Your task to perform on an android device: Open Yahoo.com Image 0: 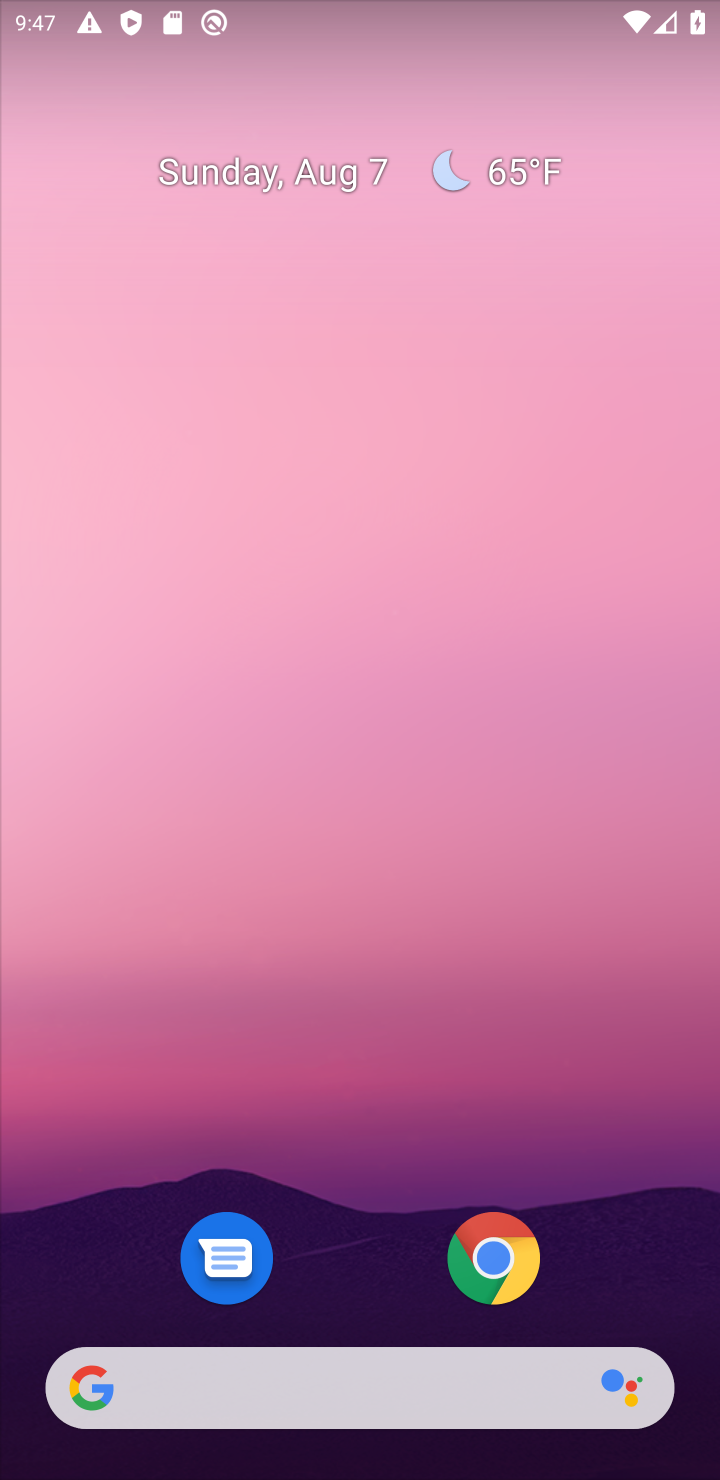
Step 0: press home button
Your task to perform on an android device: Open Yahoo.com Image 1: 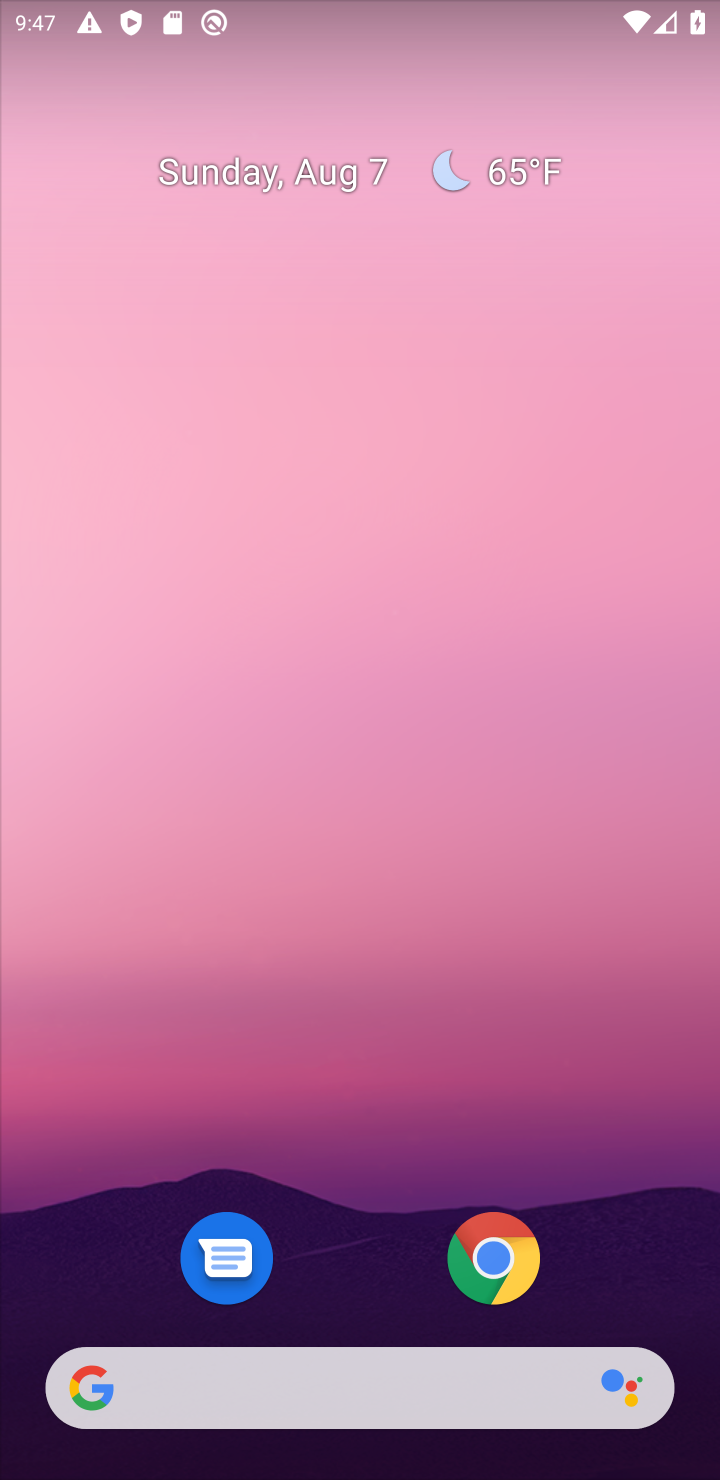
Step 1: click (517, 1265)
Your task to perform on an android device: Open Yahoo.com Image 2: 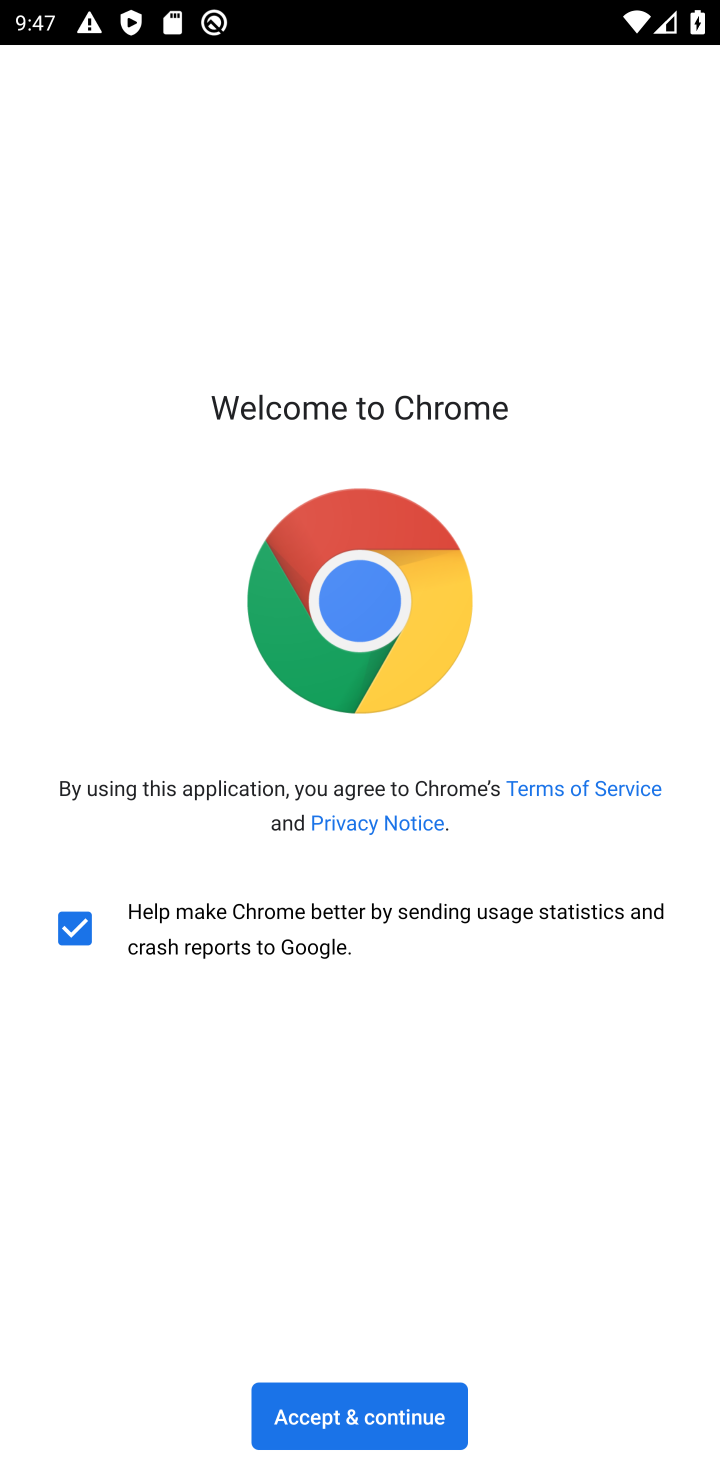
Step 2: drag from (415, 1420) to (615, 1444)
Your task to perform on an android device: Open Yahoo.com Image 3: 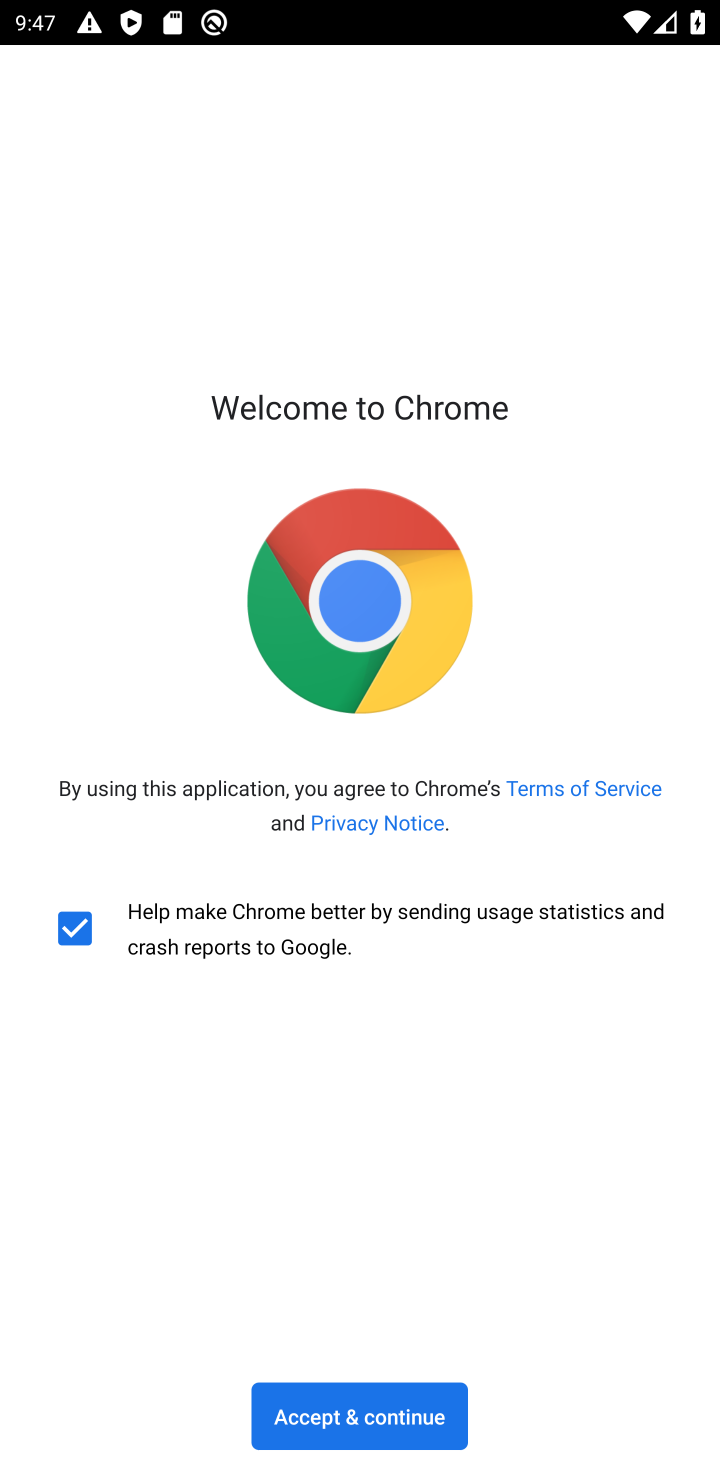
Step 3: click (615, 1444)
Your task to perform on an android device: Open Yahoo.com Image 4: 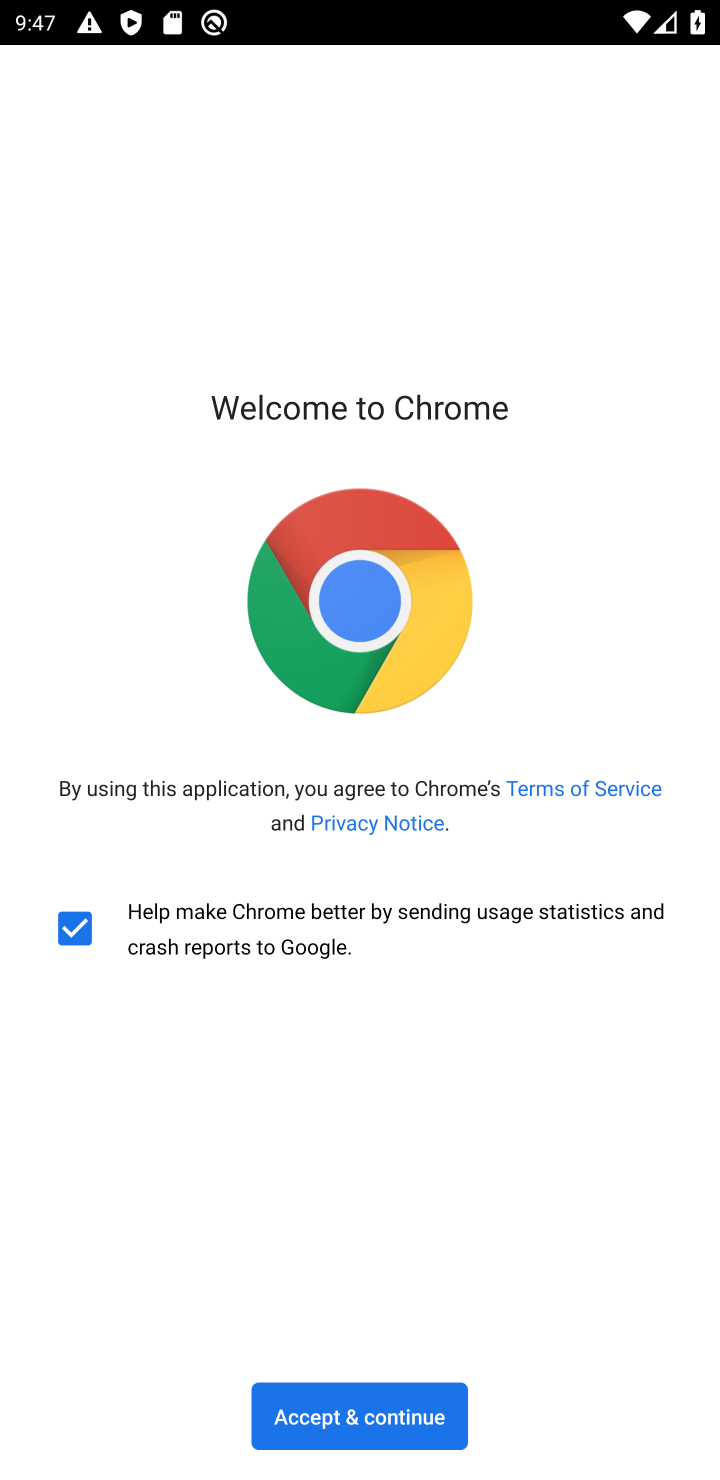
Step 4: click (365, 1417)
Your task to perform on an android device: Open Yahoo.com Image 5: 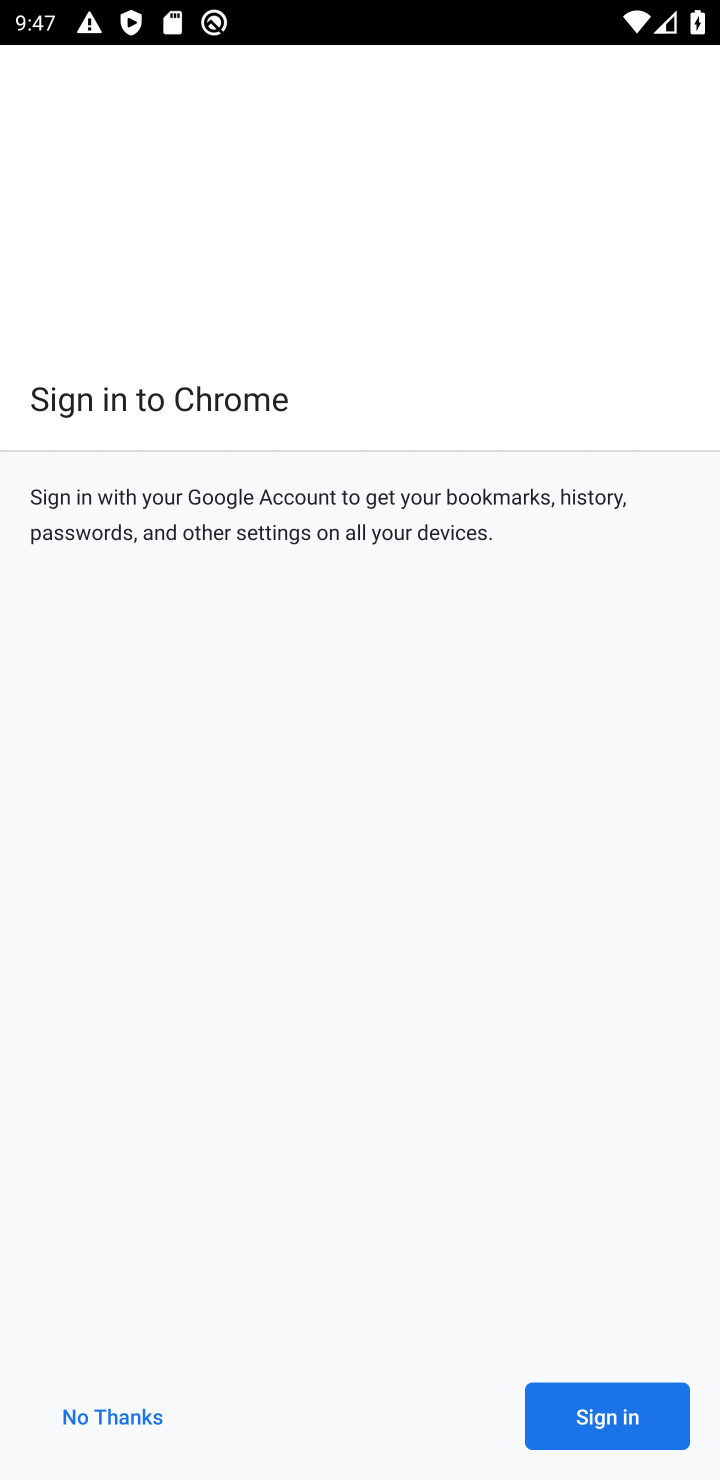
Step 5: click (651, 1408)
Your task to perform on an android device: Open Yahoo.com Image 6: 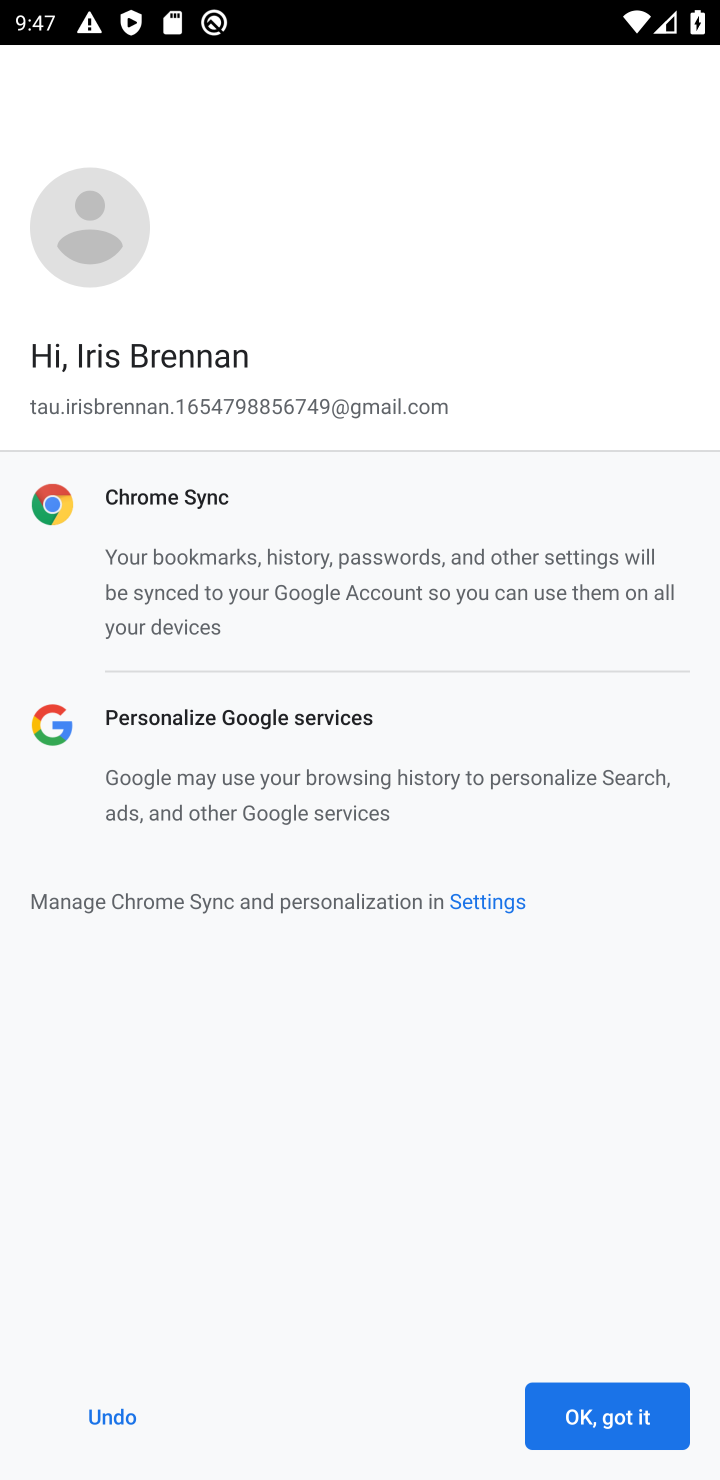
Step 6: click (651, 1408)
Your task to perform on an android device: Open Yahoo.com Image 7: 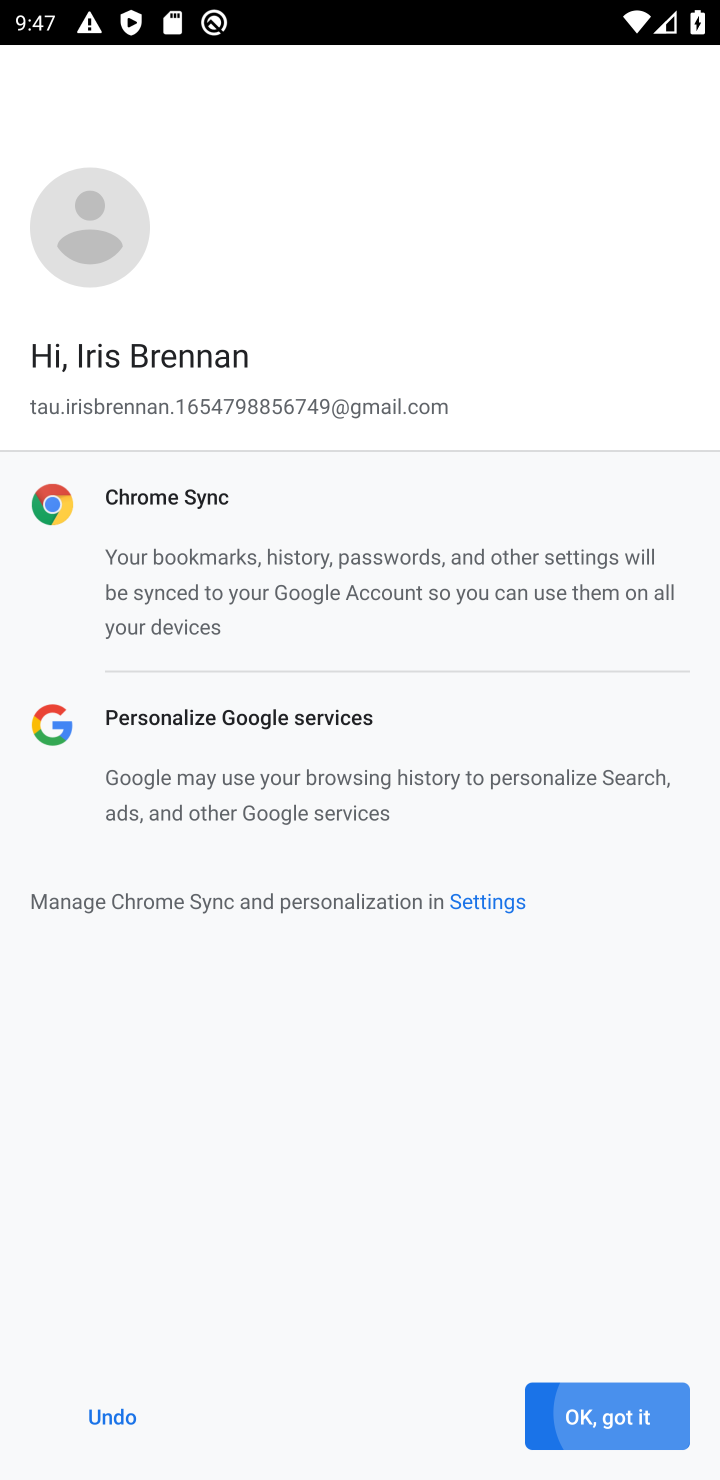
Step 7: click (651, 1408)
Your task to perform on an android device: Open Yahoo.com Image 8: 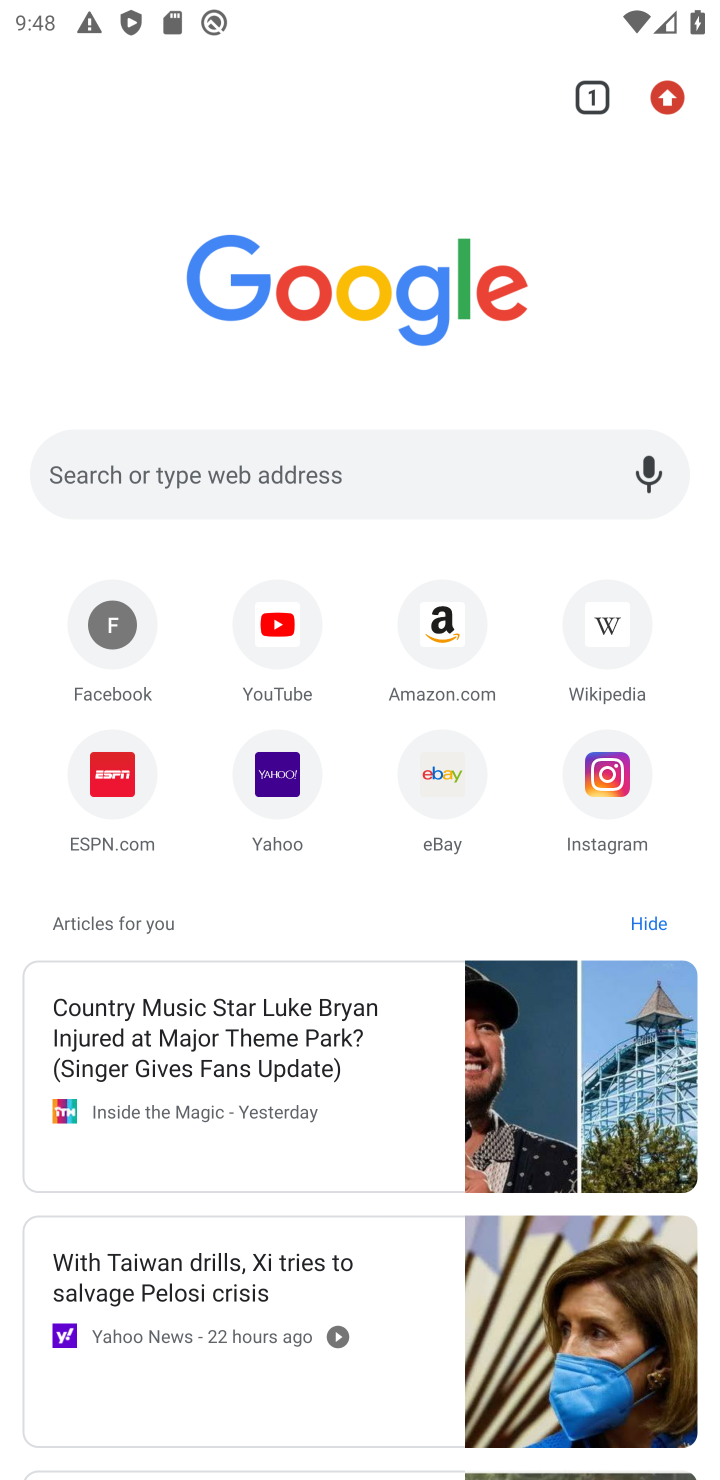
Step 8: click (239, 815)
Your task to perform on an android device: Open Yahoo.com Image 9: 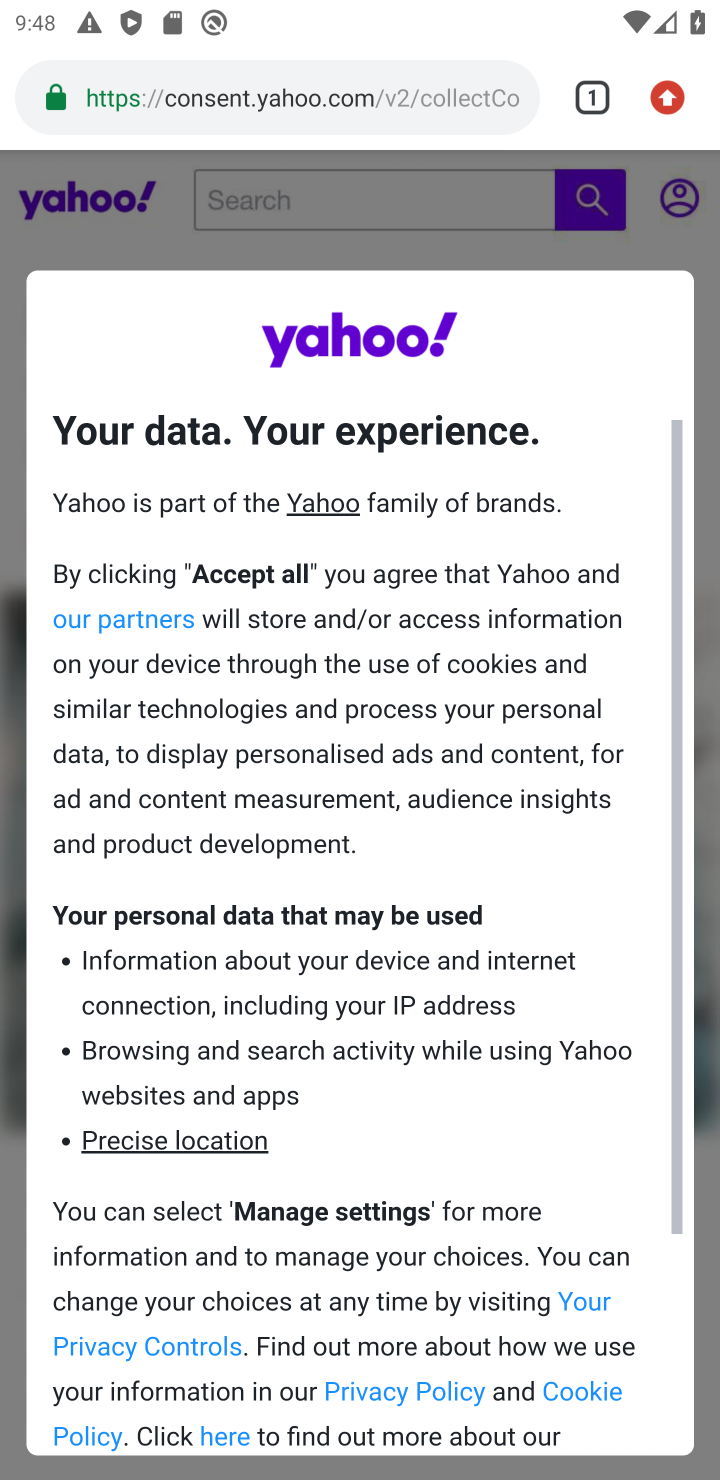
Step 9: task complete